Your task to perform on an android device: add a contact in the contacts app Image 0: 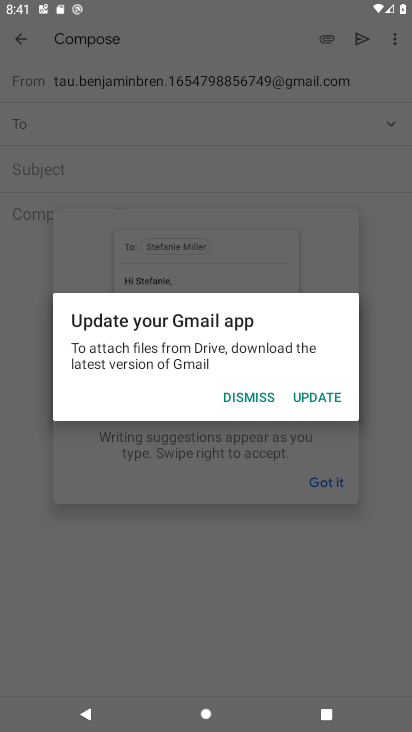
Step 0: press home button
Your task to perform on an android device: add a contact in the contacts app Image 1: 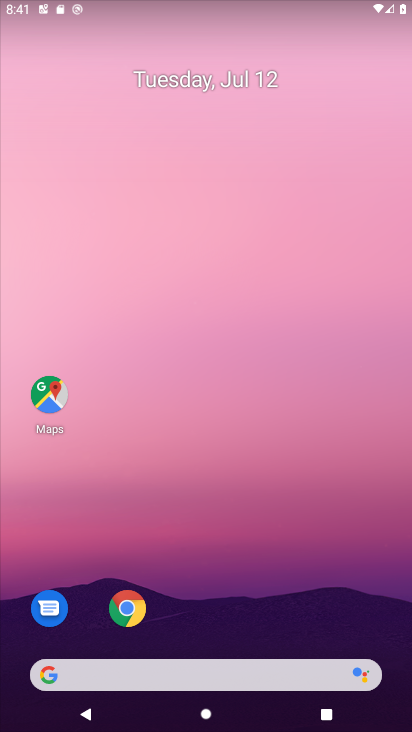
Step 1: drag from (191, 669) to (292, 332)
Your task to perform on an android device: add a contact in the contacts app Image 2: 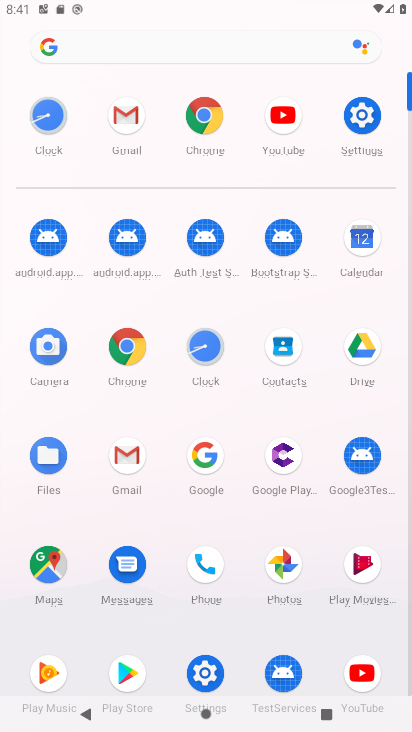
Step 2: click (280, 350)
Your task to perform on an android device: add a contact in the contacts app Image 3: 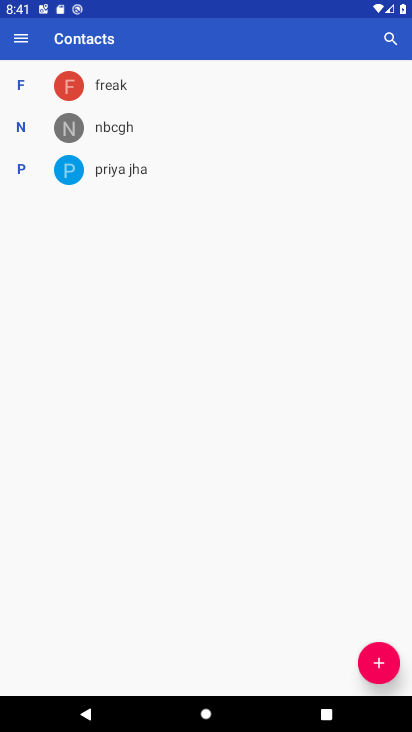
Step 3: click (378, 659)
Your task to perform on an android device: add a contact in the contacts app Image 4: 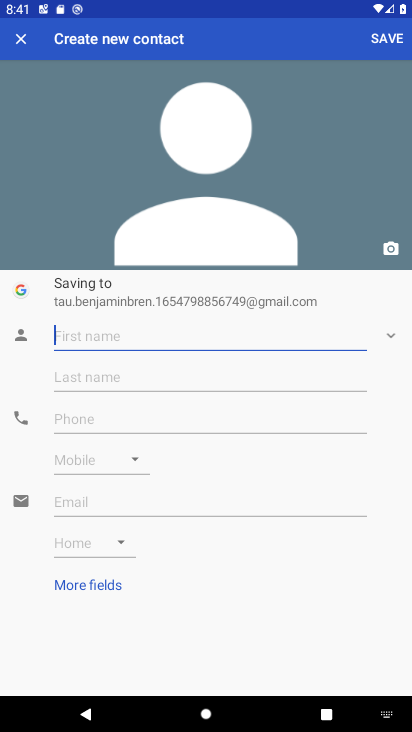
Step 4: type "frtygfhg"
Your task to perform on an android device: add a contact in the contacts app Image 5: 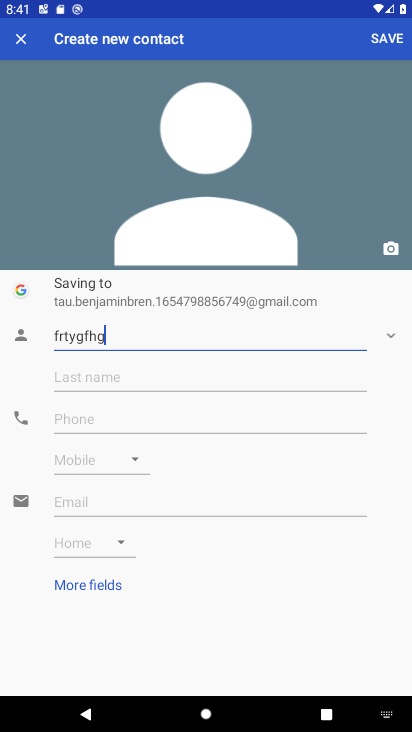
Step 5: click (105, 416)
Your task to perform on an android device: add a contact in the contacts app Image 6: 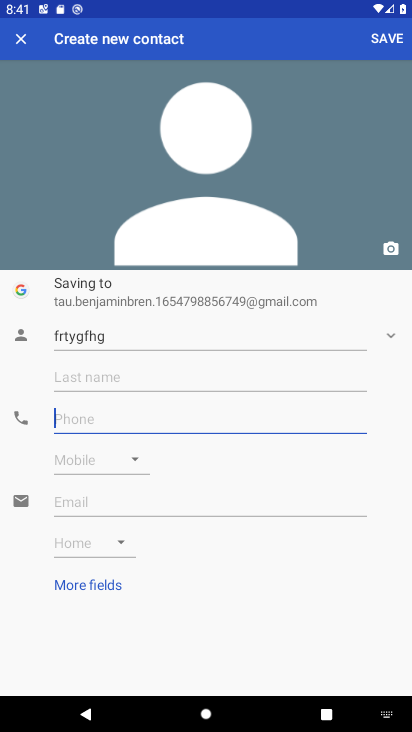
Step 6: type "76885543332"
Your task to perform on an android device: add a contact in the contacts app Image 7: 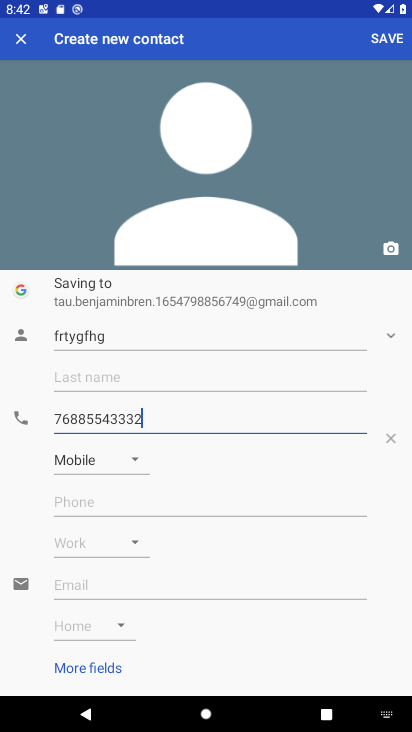
Step 7: click (388, 42)
Your task to perform on an android device: add a contact in the contacts app Image 8: 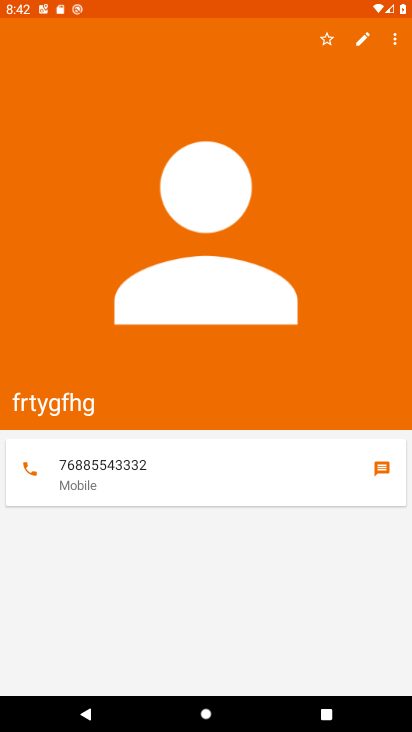
Step 8: task complete